Your task to perform on an android device: turn on improve location accuracy Image 0: 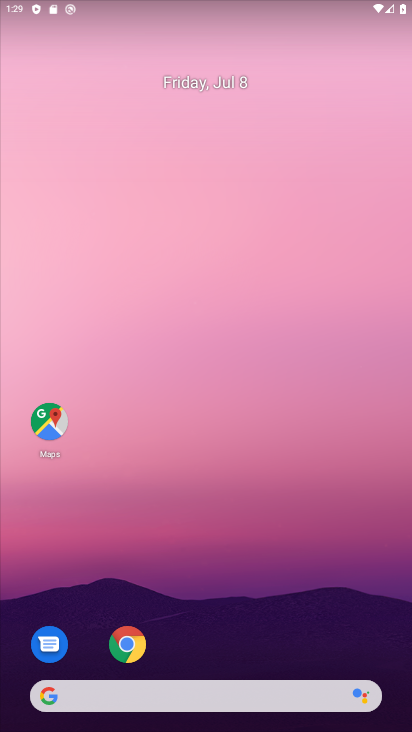
Step 0: drag from (225, 635) to (311, 72)
Your task to perform on an android device: turn on improve location accuracy Image 1: 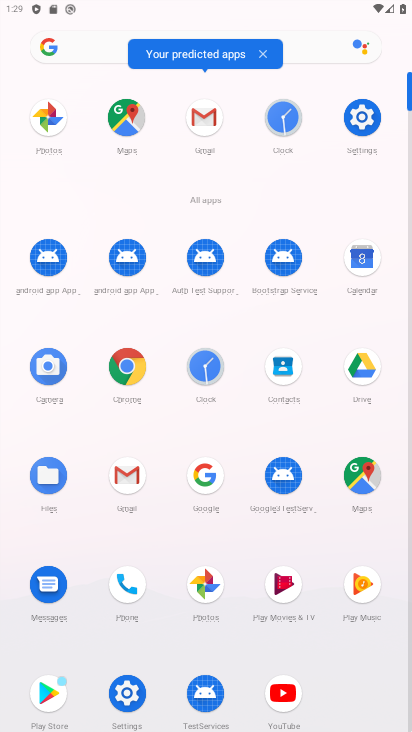
Step 1: click (361, 118)
Your task to perform on an android device: turn on improve location accuracy Image 2: 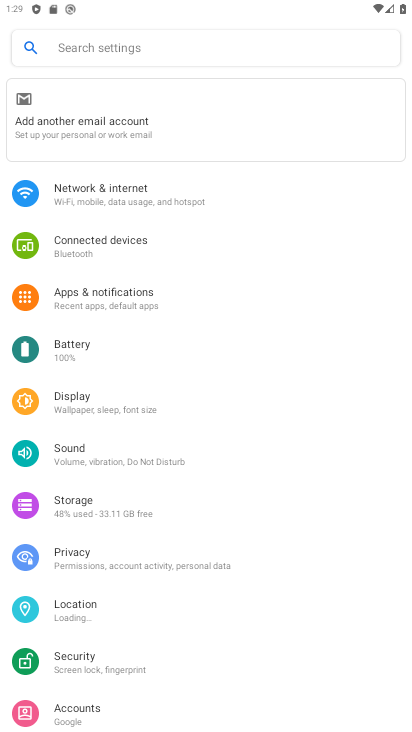
Step 2: click (84, 613)
Your task to perform on an android device: turn on improve location accuracy Image 3: 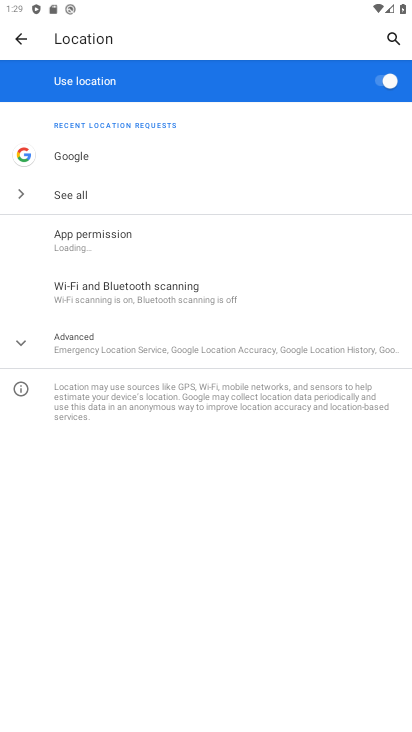
Step 3: click (71, 344)
Your task to perform on an android device: turn on improve location accuracy Image 4: 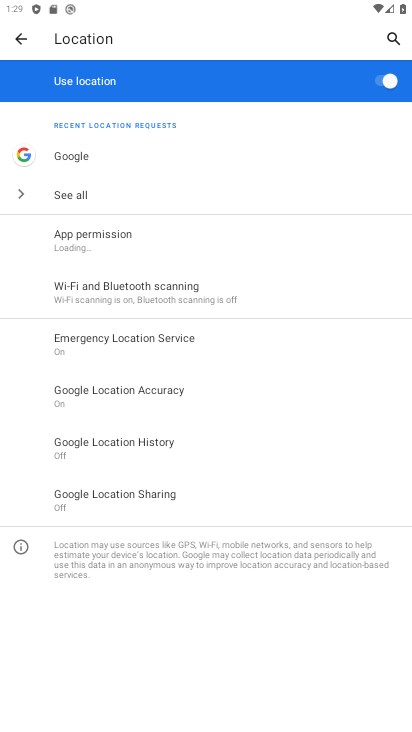
Step 4: click (150, 383)
Your task to perform on an android device: turn on improve location accuracy Image 5: 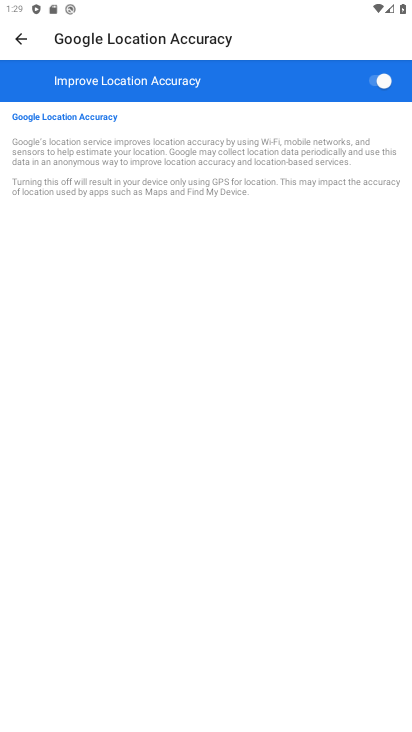
Step 5: task complete